Your task to perform on an android device: Do I have any events this weekend? Image 0: 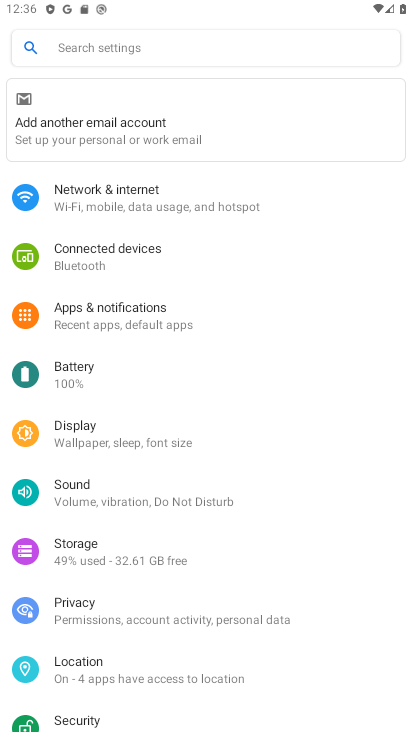
Step 0: press home button
Your task to perform on an android device: Do I have any events this weekend? Image 1: 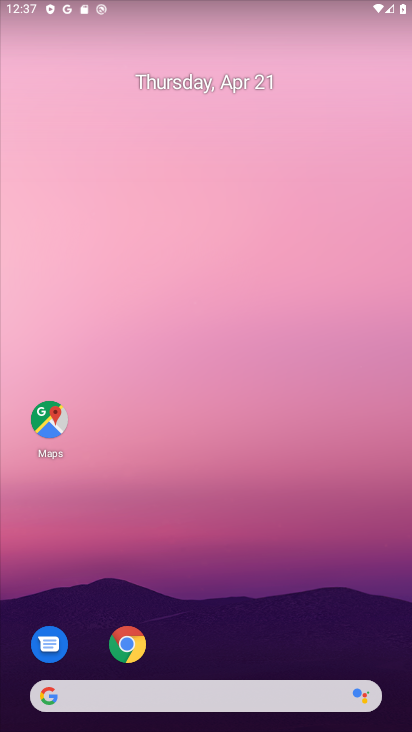
Step 1: drag from (283, 650) to (233, 174)
Your task to perform on an android device: Do I have any events this weekend? Image 2: 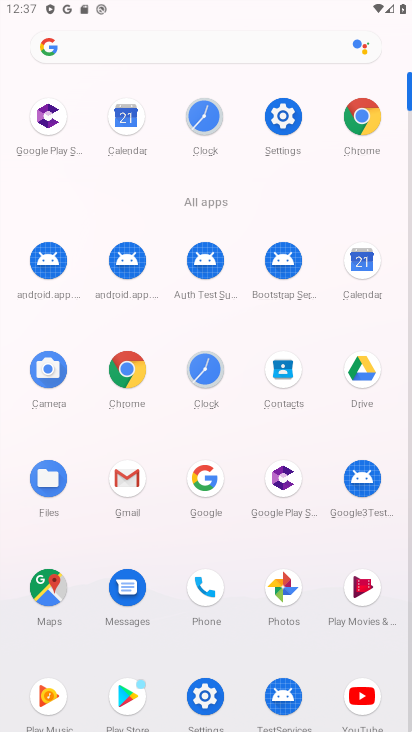
Step 2: click (370, 263)
Your task to perform on an android device: Do I have any events this weekend? Image 3: 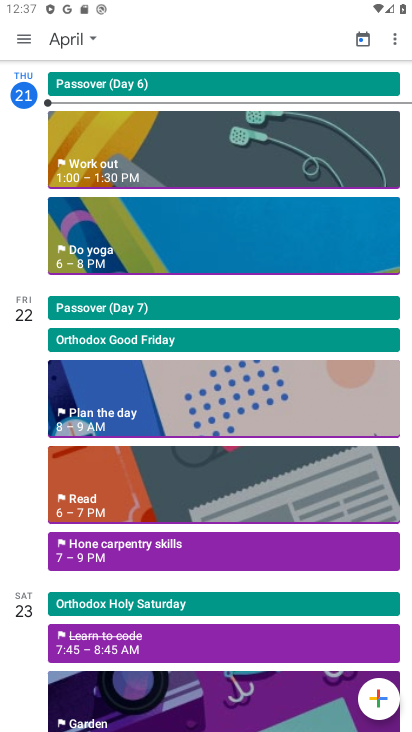
Step 3: click (86, 37)
Your task to perform on an android device: Do I have any events this weekend? Image 4: 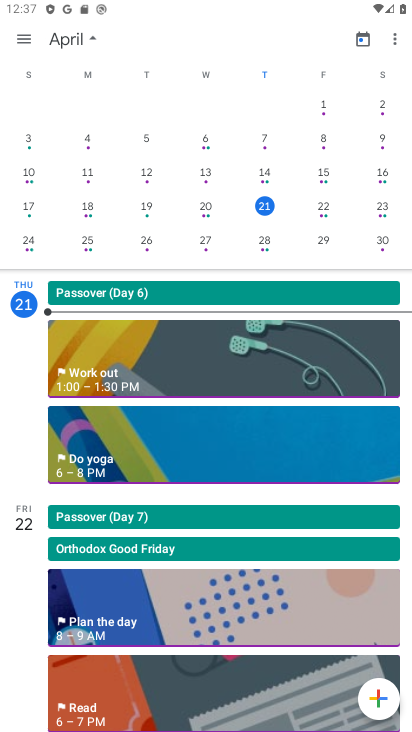
Step 4: click (320, 207)
Your task to perform on an android device: Do I have any events this weekend? Image 5: 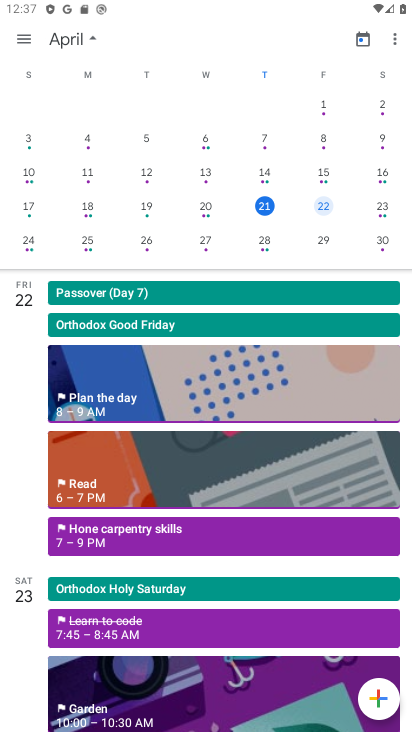
Step 5: click (92, 42)
Your task to perform on an android device: Do I have any events this weekend? Image 6: 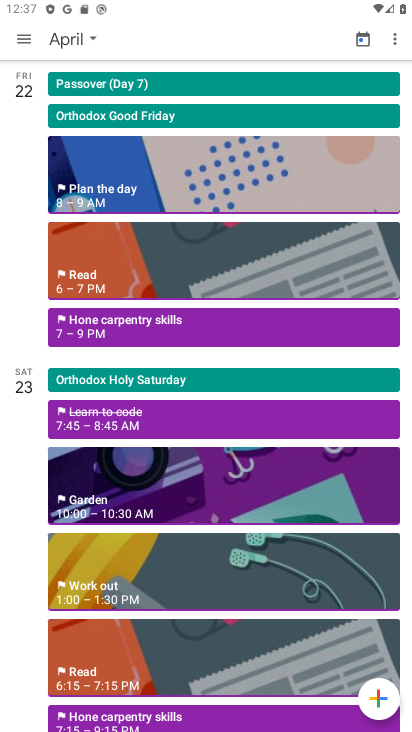
Step 6: task complete